Your task to perform on an android device: toggle airplane mode Image 0: 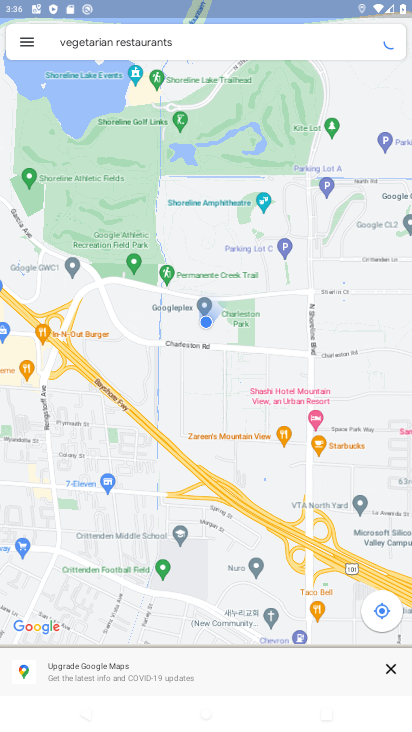
Step 0: press home button
Your task to perform on an android device: toggle airplane mode Image 1: 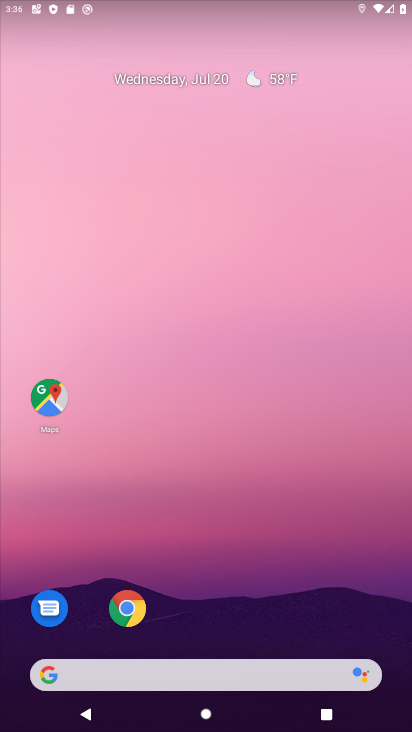
Step 1: task complete